Your task to perform on an android device: Go to battery settings Image 0: 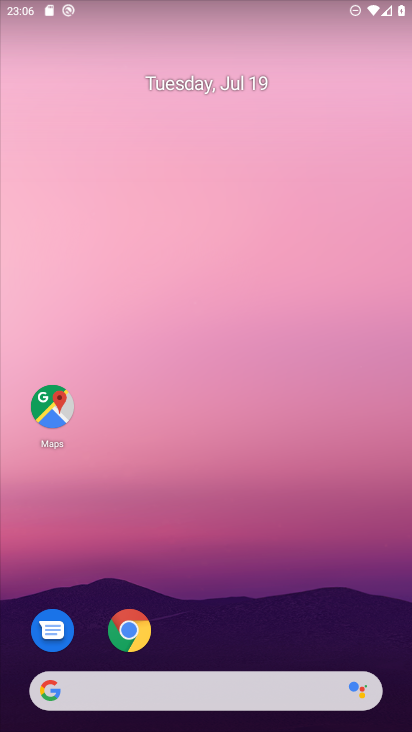
Step 0: drag from (212, 620) to (196, 173)
Your task to perform on an android device: Go to battery settings Image 1: 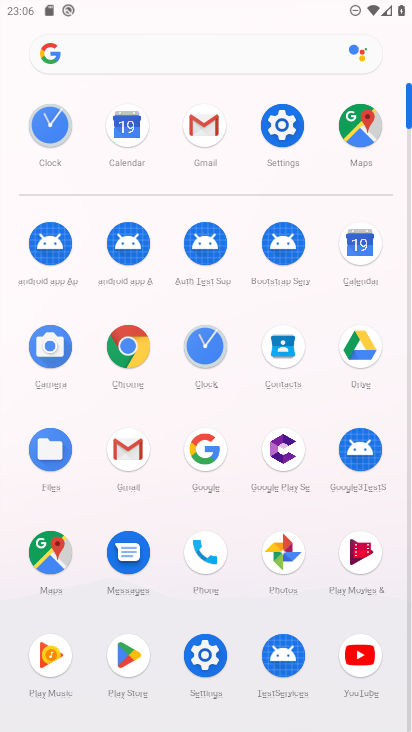
Step 1: click (268, 133)
Your task to perform on an android device: Go to battery settings Image 2: 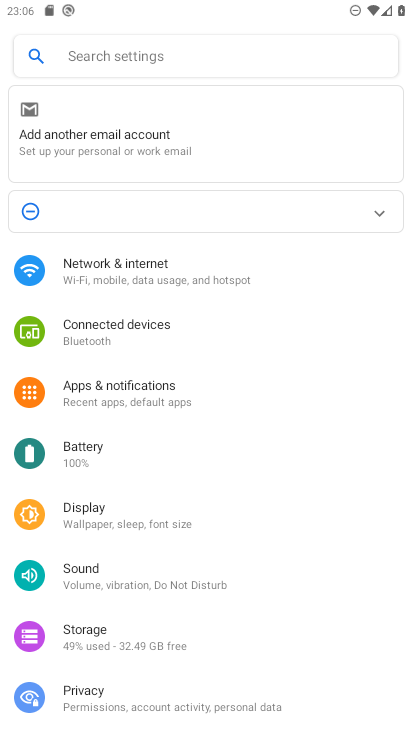
Step 2: click (139, 458)
Your task to perform on an android device: Go to battery settings Image 3: 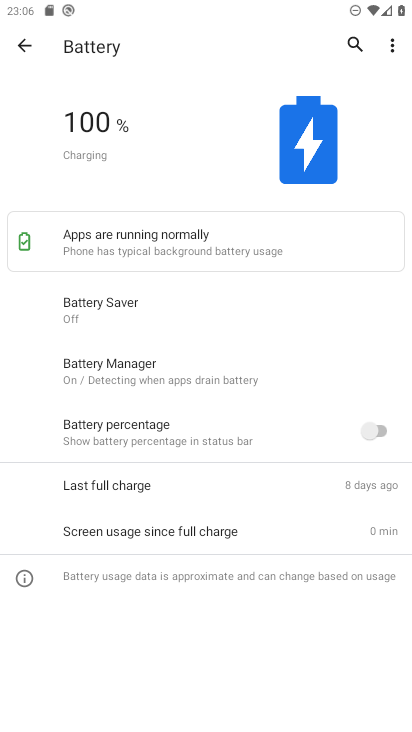
Step 3: task complete